Your task to perform on an android device: Open Yahoo.com Image 0: 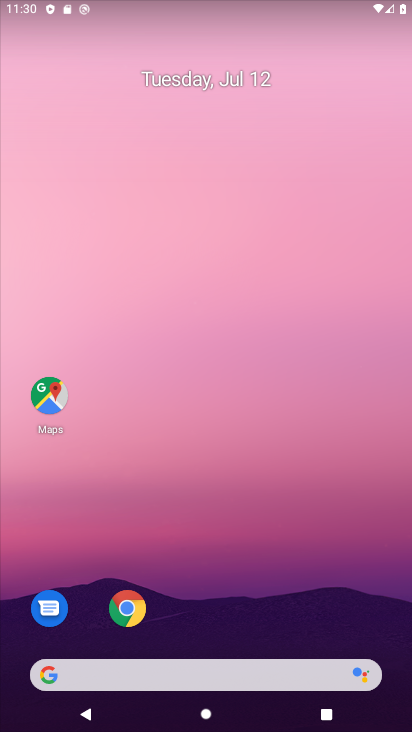
Step 0: click (129, 595)
Your task to perform on an android device: Open Yahoo.com Image 1: 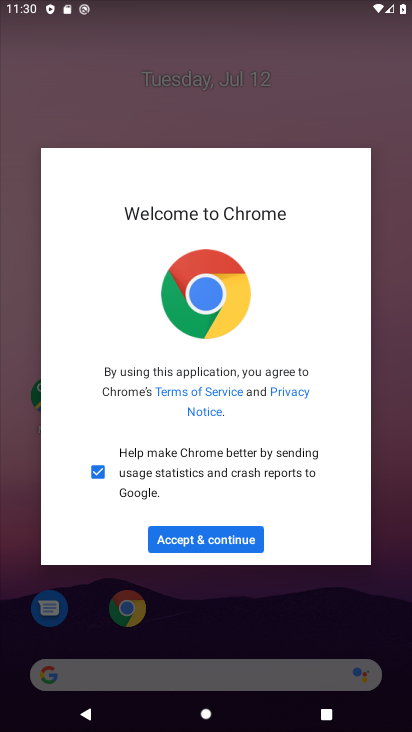
Step 1: click (231, 547)
Your task to perform on an android device: Open Yahoo.com Image 2: 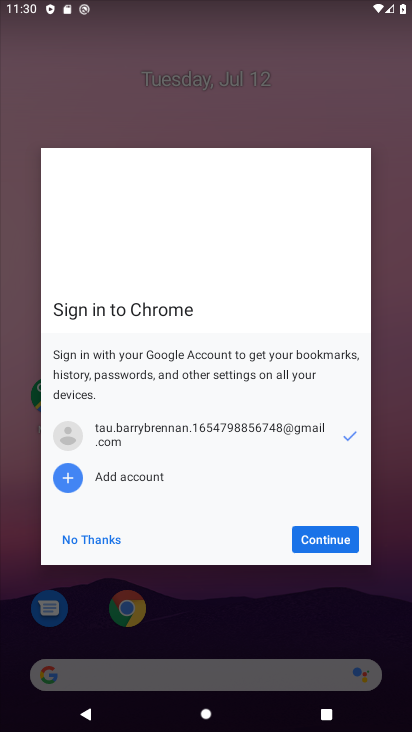
Step 2: click (331, 539)
Your task to perform on an android device: Open Yahoo.com Image 3: 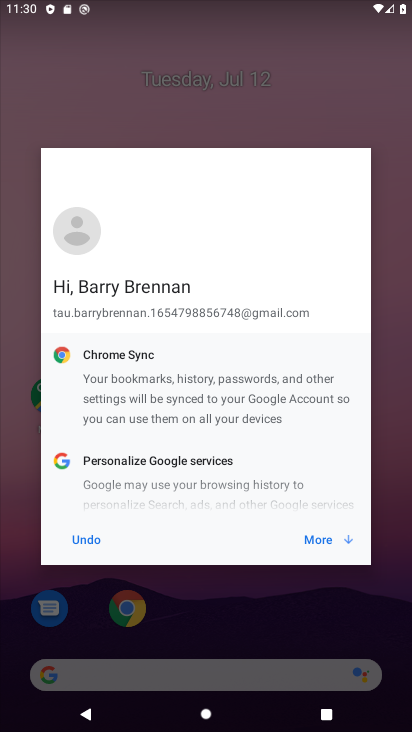
Step 3: click (324, 544)
Your task to perform on an android device: Open Yahoo.com Image 4: 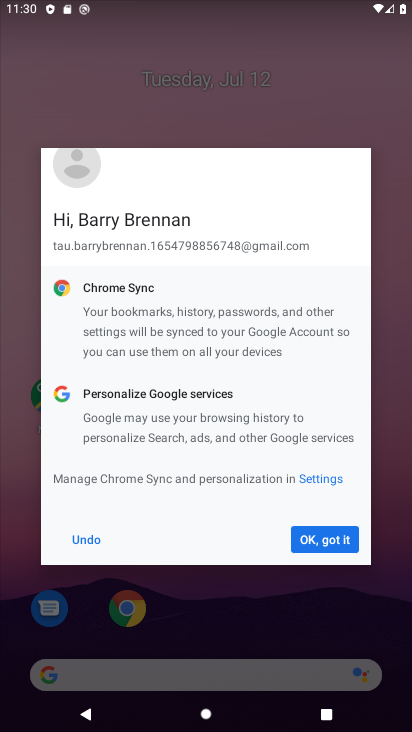
Step 4: click (324, 544)
Your task to perform on an android device: Open Yahoo.com Image 5: 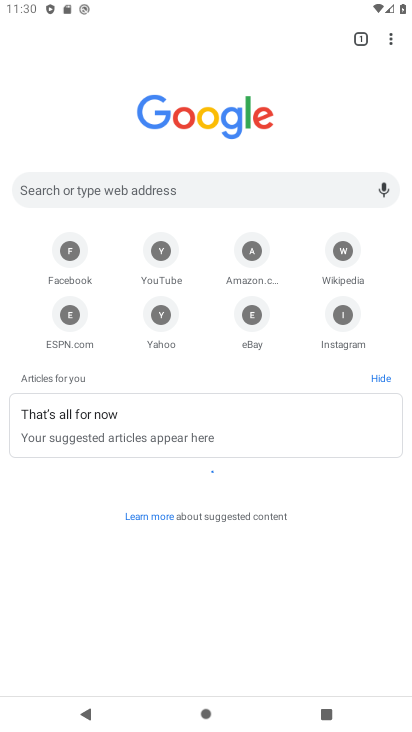
Step 5: click (160, 311)
Your task to perform on an android device: Open Yahoo.com Image 6: 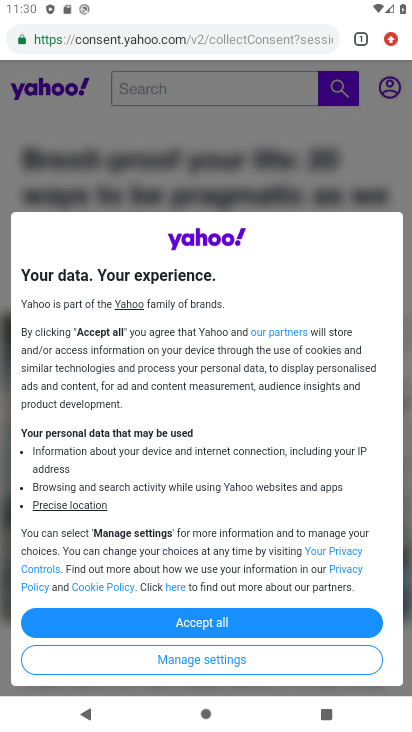
Step 6: task complete